Your task to perform on an android device: Open the web browser Image 0: 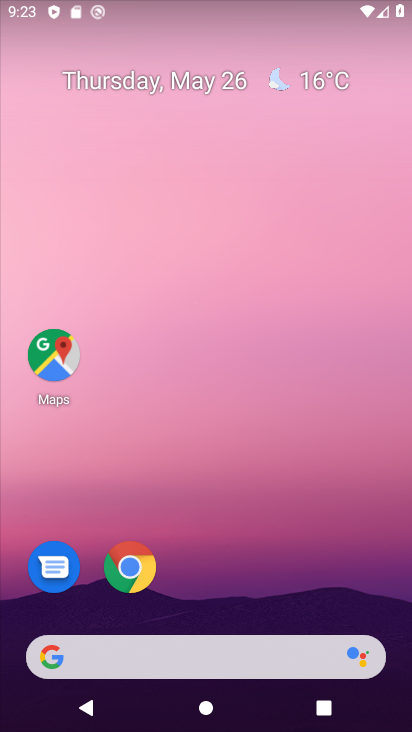
Step 0: click (124, 556)
Your task to perform on an android device: Open the web browser Image 1: 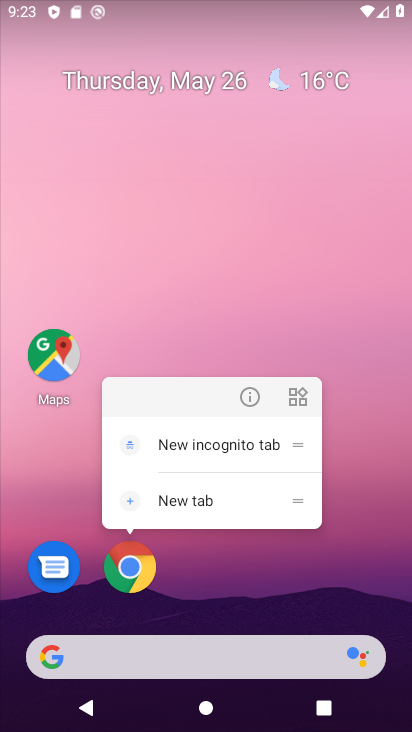
Step 1: click (124, 556)
Your task to perform on an android device: Open the web browser Image 2: 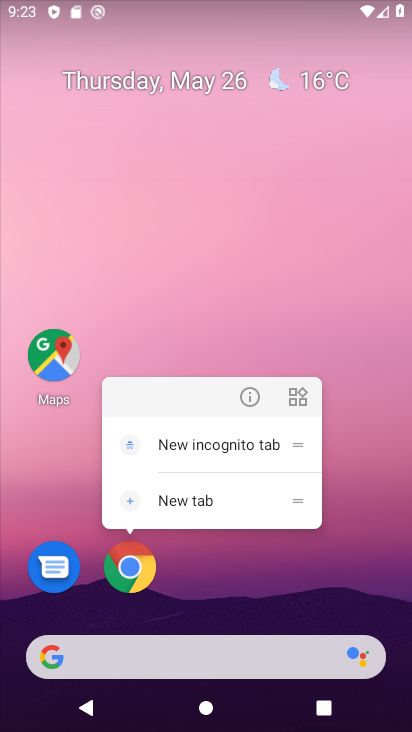
Step 2: click (128, 571)
Your task to perform on an android device: Open the web browser Image 3: 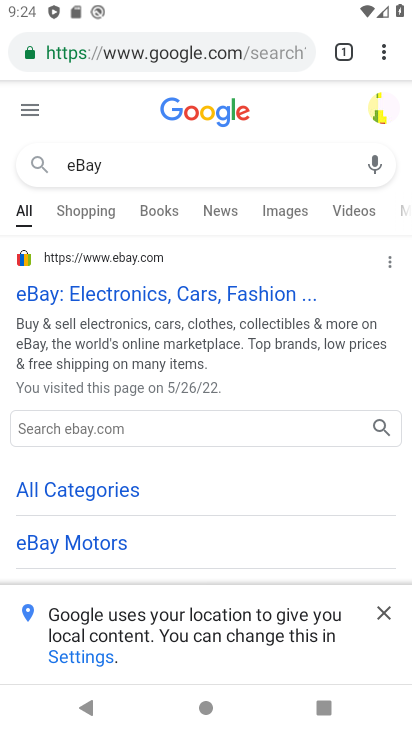
Step 3: task complete